Your task to perform on an android device: open chrome privacy settings Image 0: 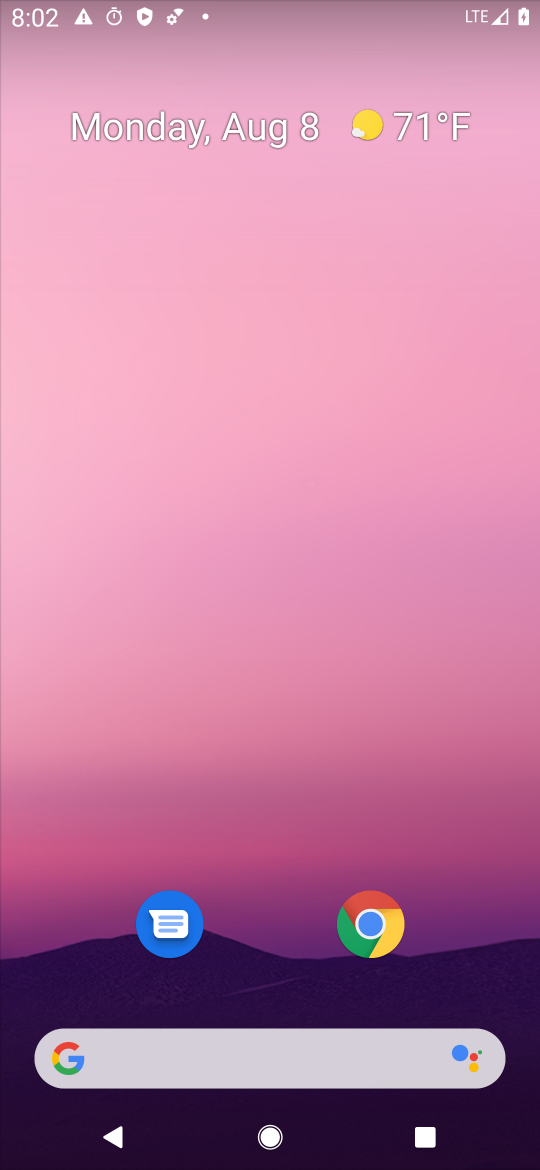
Step 0: click (378, 905)
Your task to perform on an android device: open chrome privacy settings Image 1: 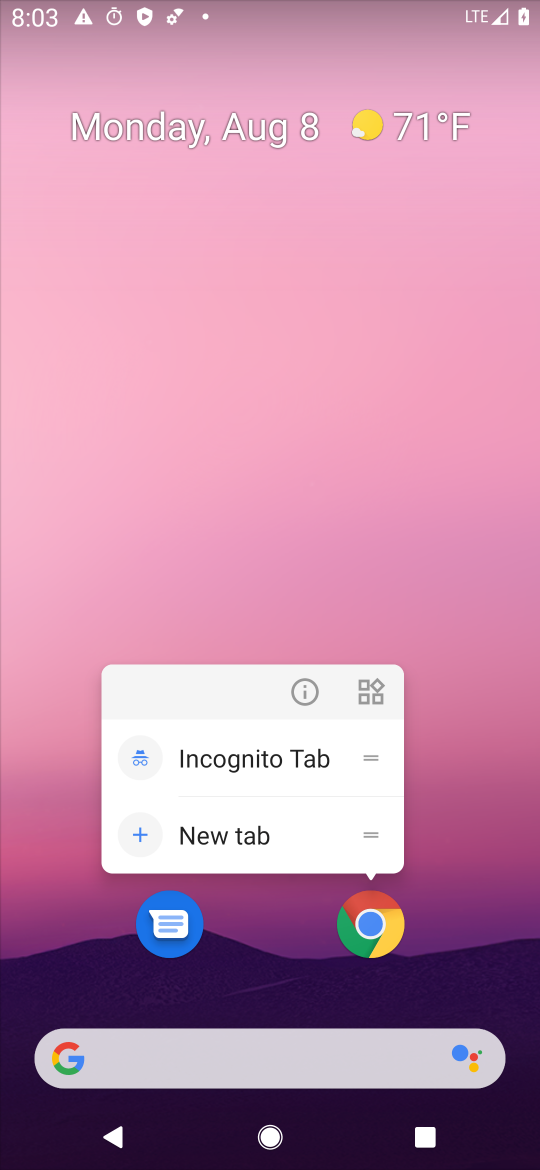
Step 1: drag from (280, 940) to (189, 262)
Your task to perform on an android device: open chrome privacy settings Image 2: 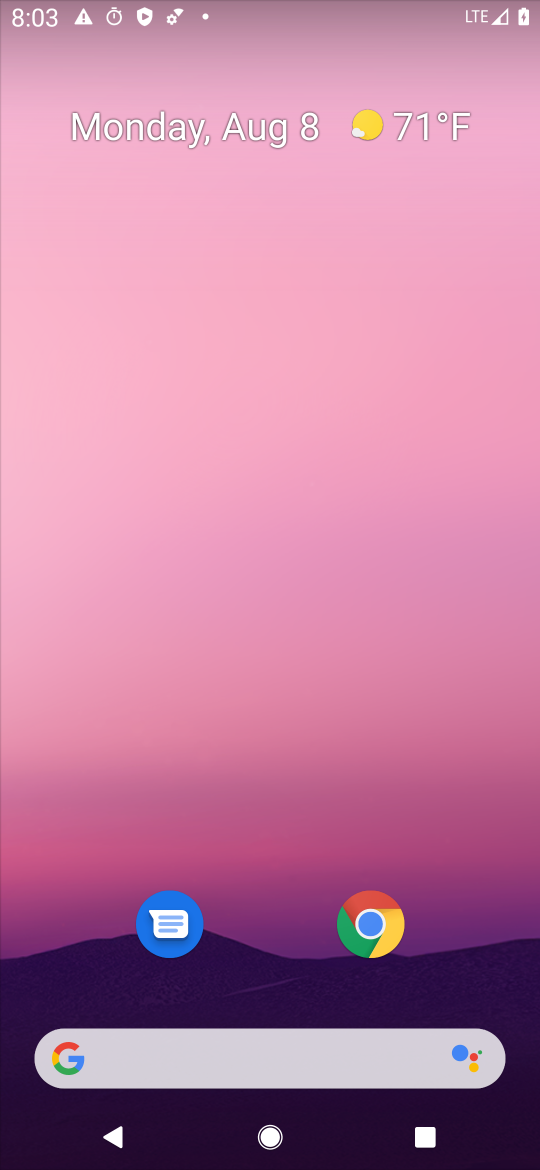
Step 2: drag from (247, 300) to (295, 4)
Your task to perform on an android device: open chrome privacy settings Image 3: 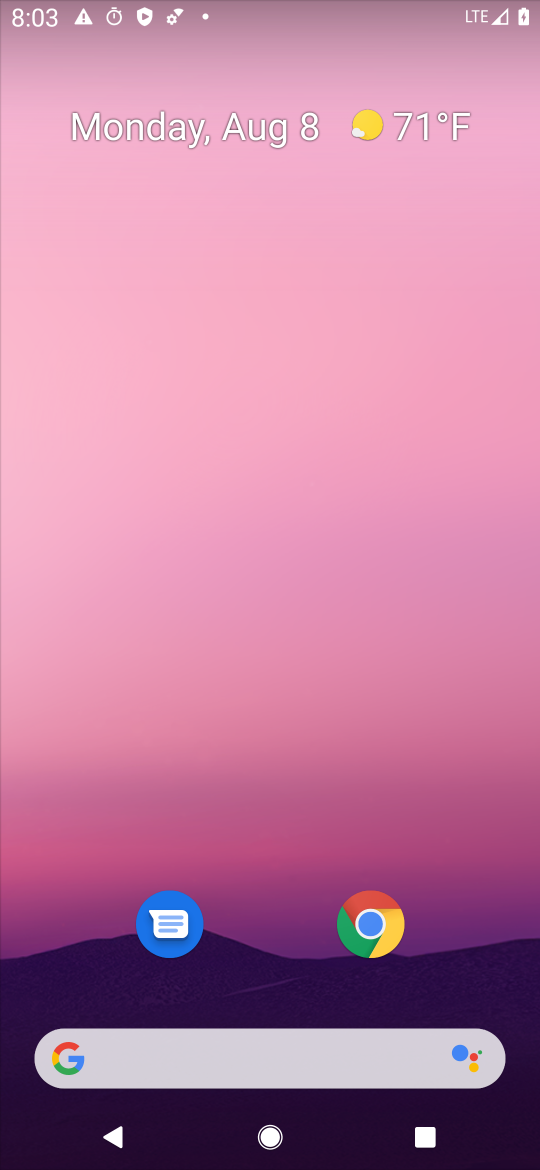
Step 3: drag from (261, 854) to (265, 329)
Your task to perform on an android device: open chrome privacy settings Image 4: 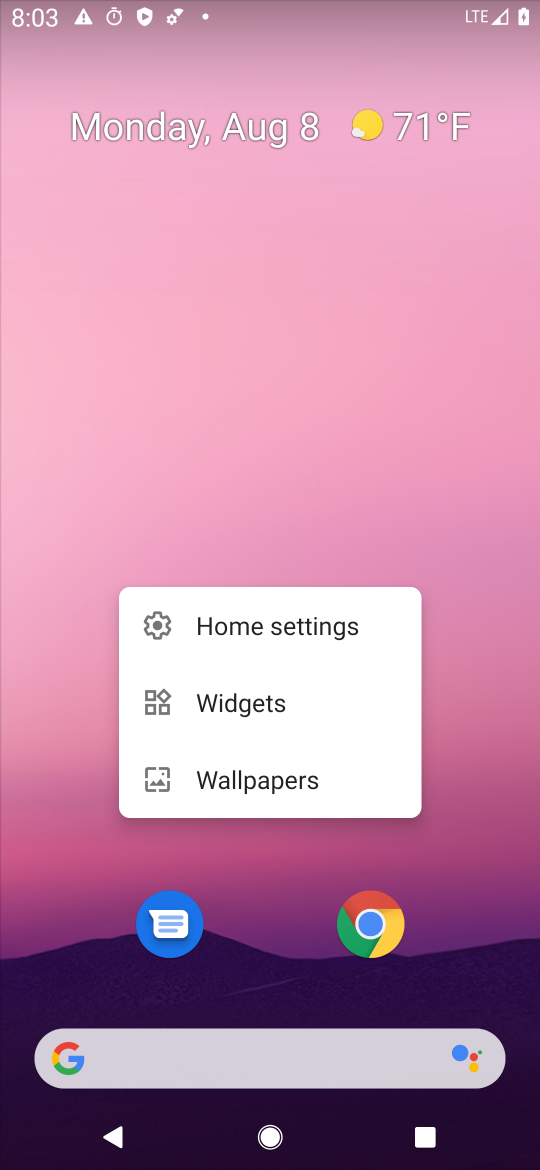
Step 4: drag from (272, 1004) to (278, 589)
Your task to perform on an android device: open chrome privacy settings Image 5: 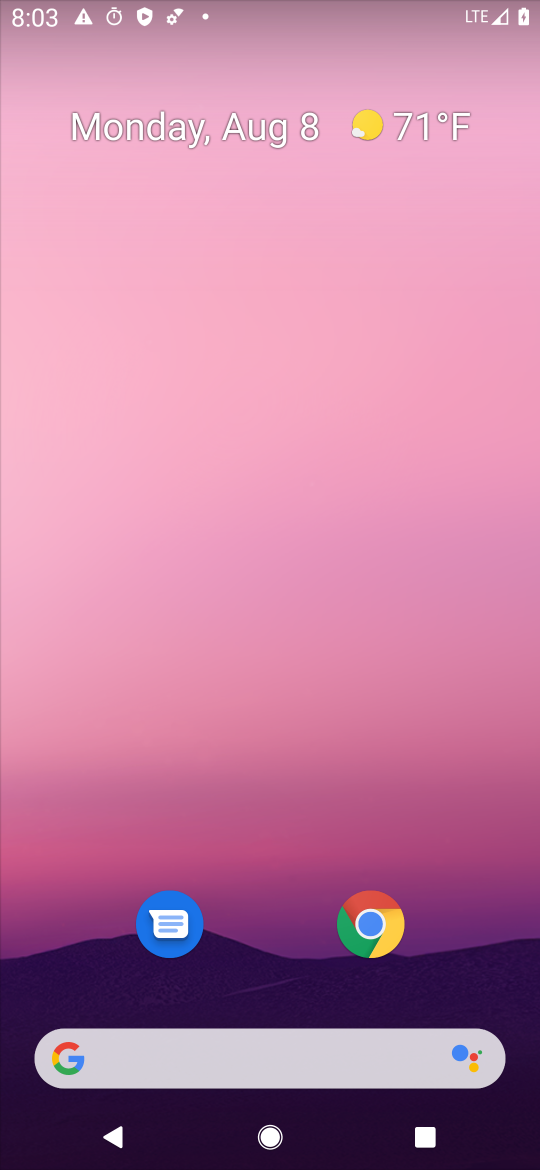
Step 5: click (375, 947)
Your task to perform on an android device: open chrome privacy settings Image 6: 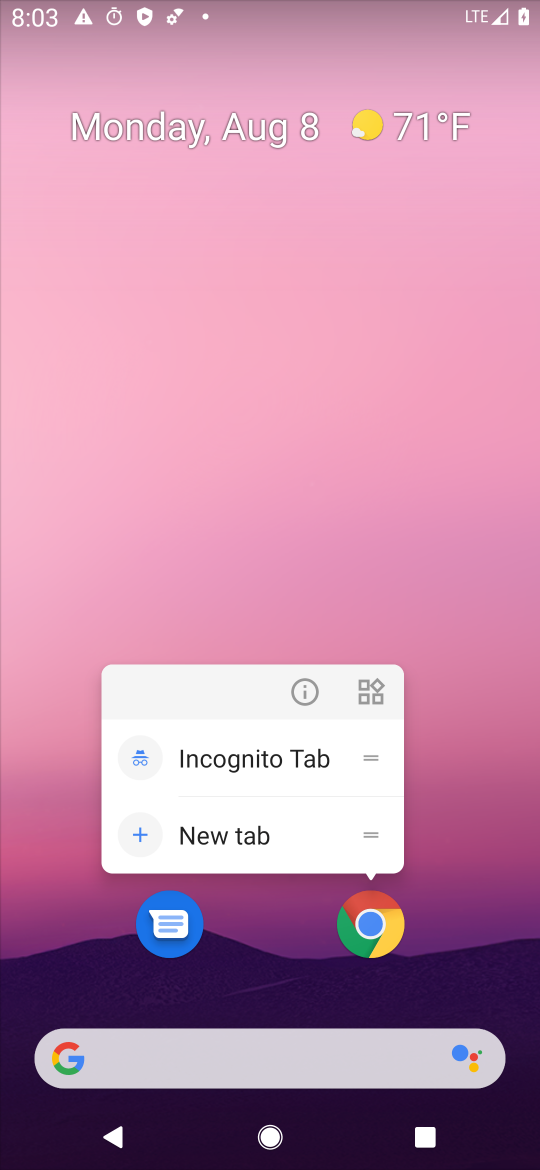
Step 6: click (164, 107)
Your task to perform on an android device: open chrome privacy settings Image 7: 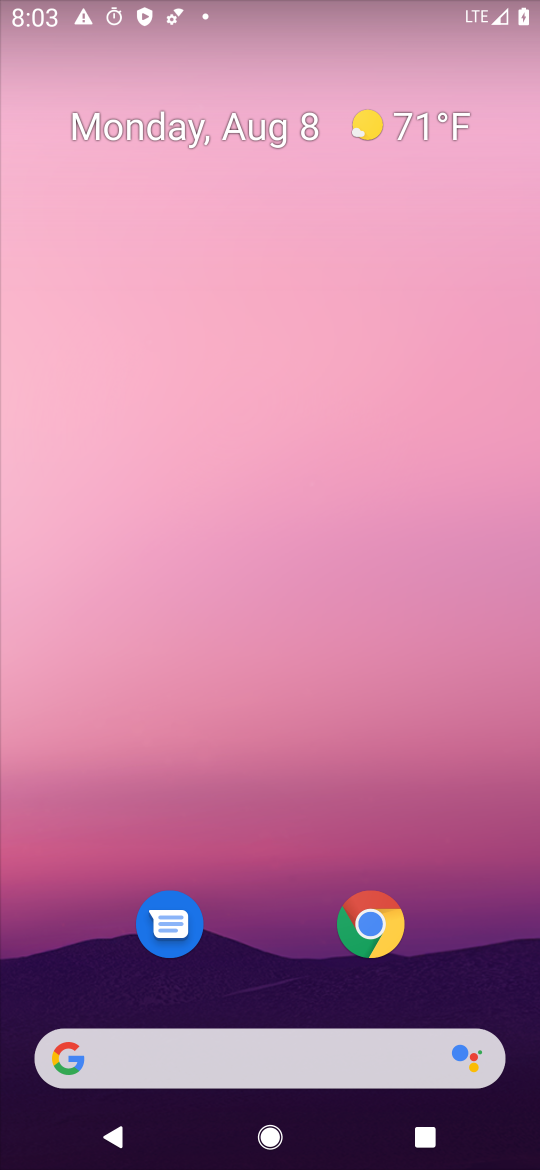
Step 7: drag from (241, 873) to (212, 290)
Your task to perform on an android device: open chrome privacy settings Image 8: 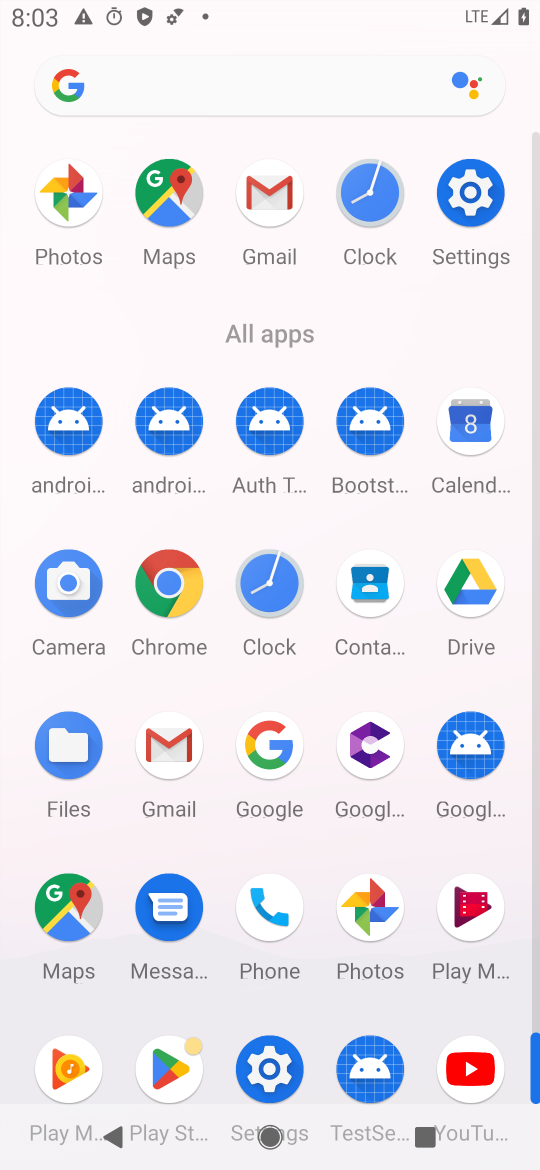
Step 8: click (159, 589)
Your task to perform on an android device: open chrome privacy settings Image 9: 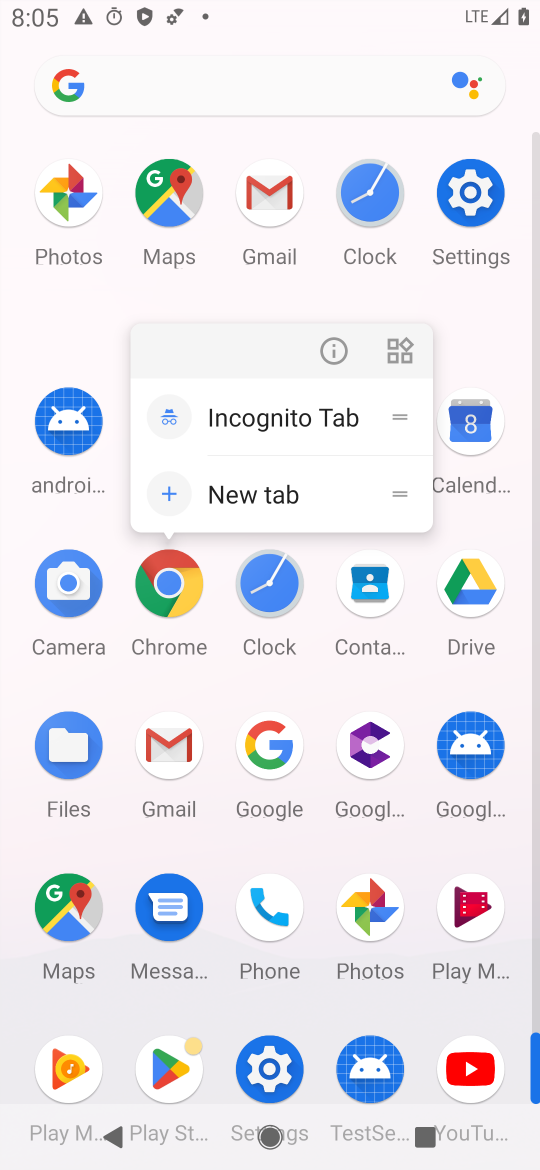
Step 9: click (318, 377)
Your task to perform on an android device: open chrome privacy settings Image 10: 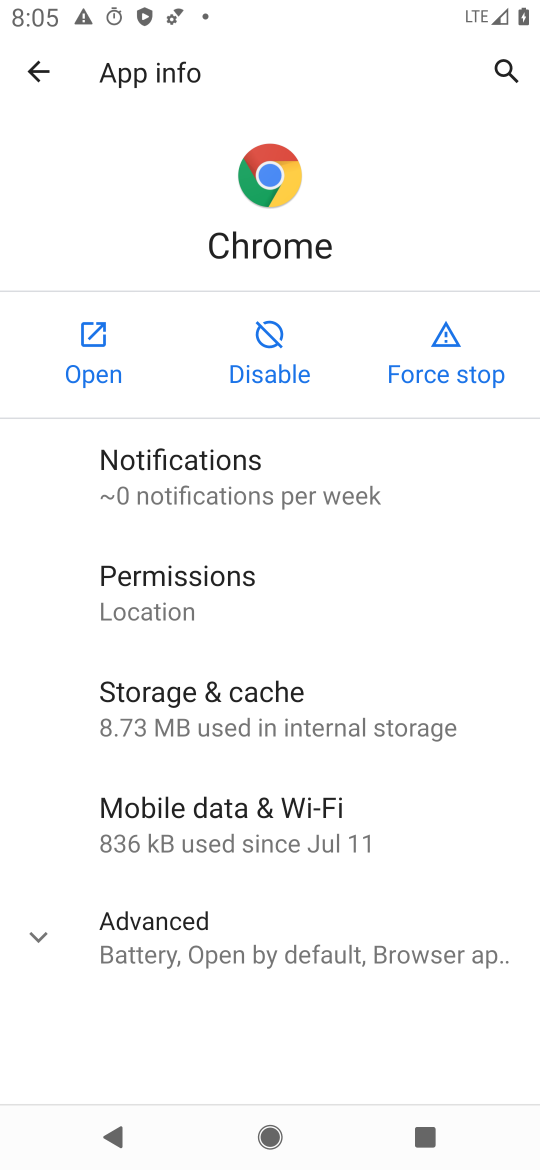
Step 10: click (105, 403)
Your task to perform on an android device: open chrome privacy settings Image 11: 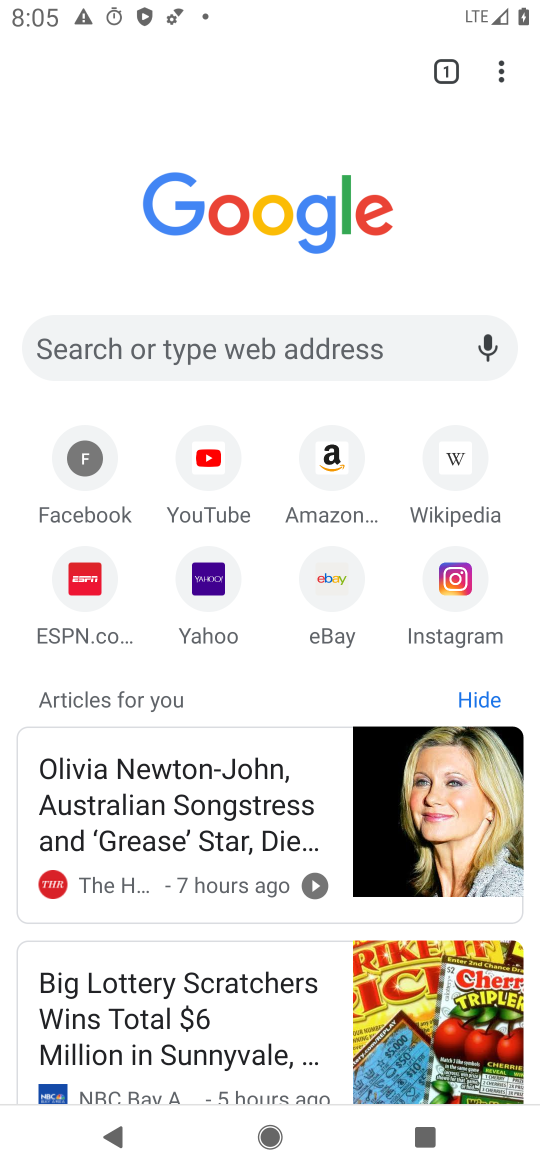
Step 11: drag from (496, 69) to (278, 588)
Your task to perform on an android device: open chrome privacy settings Image 12: 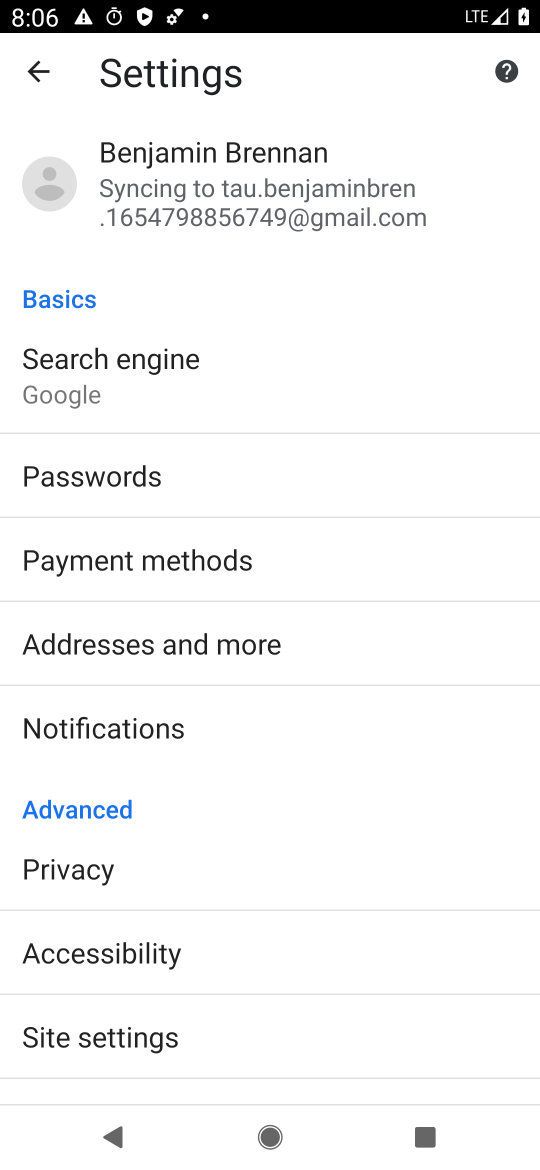
Step 12: click (124, 898)
Your task to perform on an android device: open chrome privacy settings Image 13: 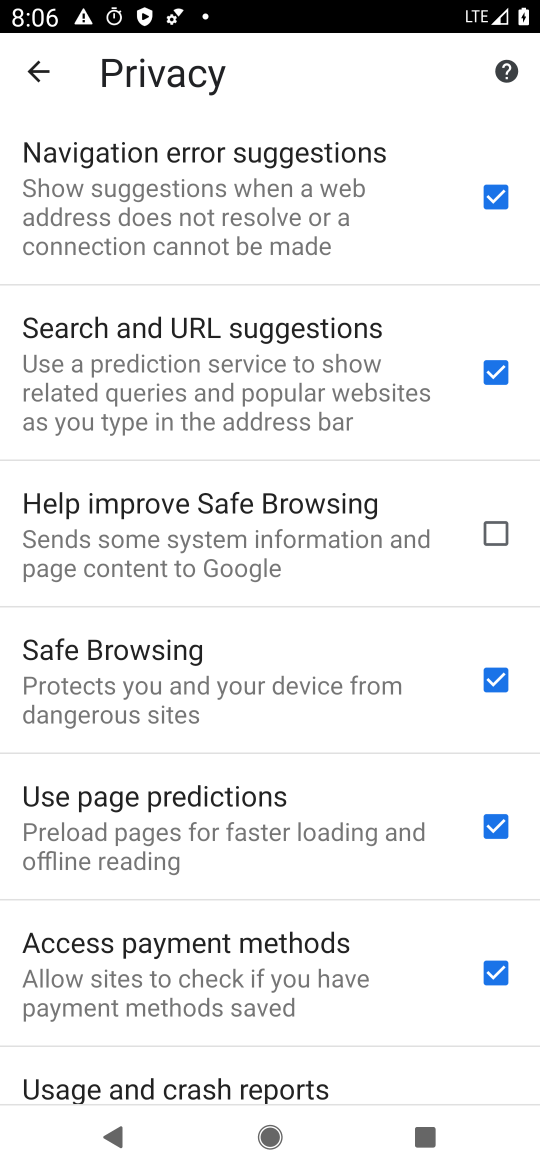
Step 13: task complete